Your task to perform on an android device: turn off location Image 0: 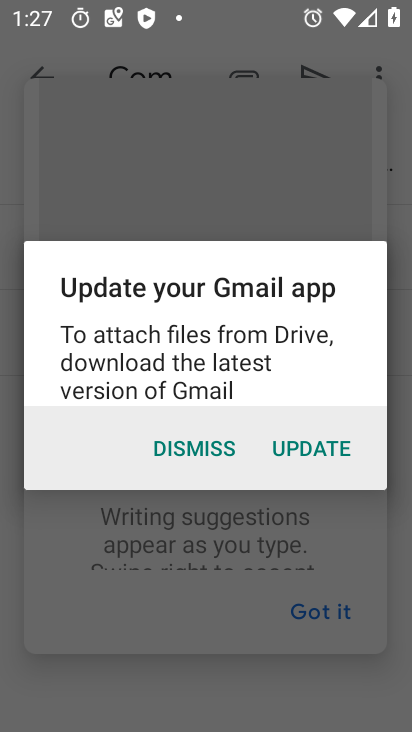
Step 0: press home button
Your task to perform on an android device: turn off location Image 1: 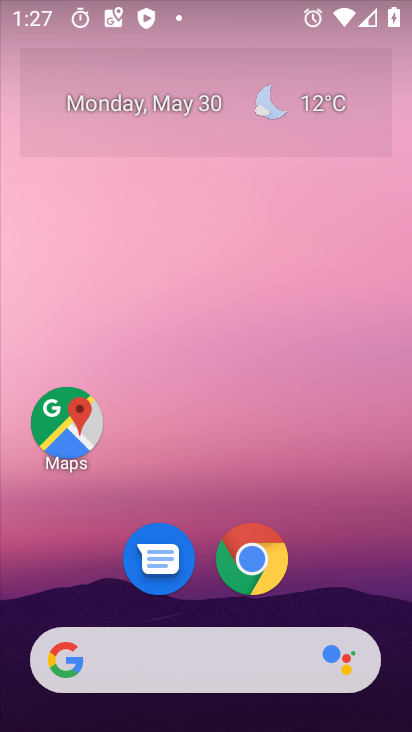
Step 1: drag from (189, 489) to (232, 82)
Your task to perform on an android device: turn off location Image 2: 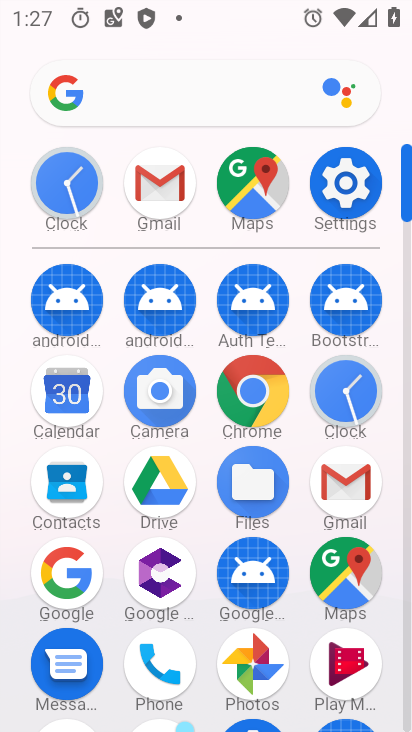
Step 2: click (361, 180)
Your task to perform on an android device: turn off location Image 3: 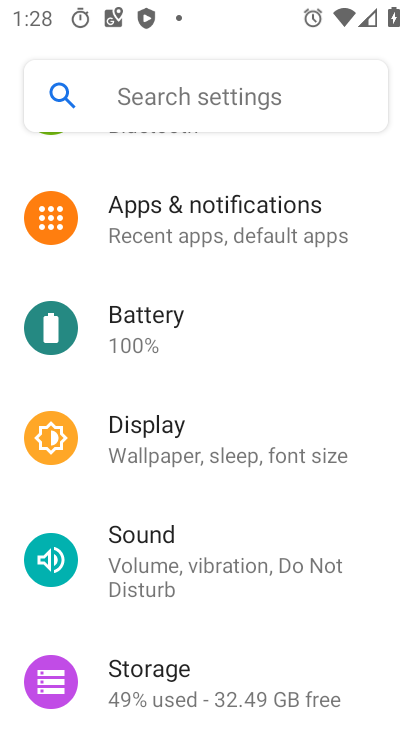
Step 3: drag from (177, 663) to (276, 132)
Your task to perform on an android device: turn off location Image 4: 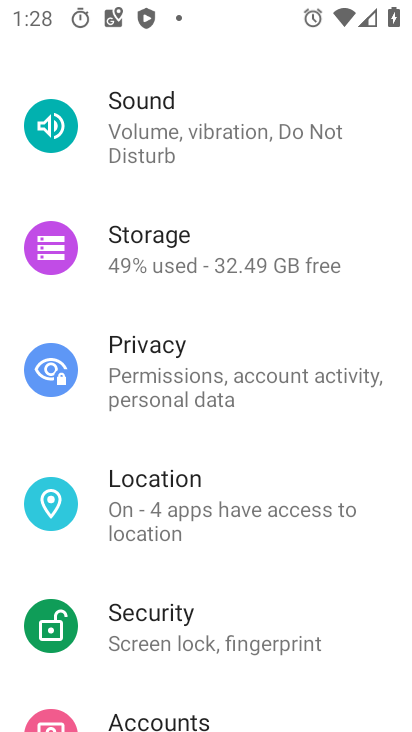
Step 4: click (142, 507)
Your task to perform on an android device: turn off location Image 5: 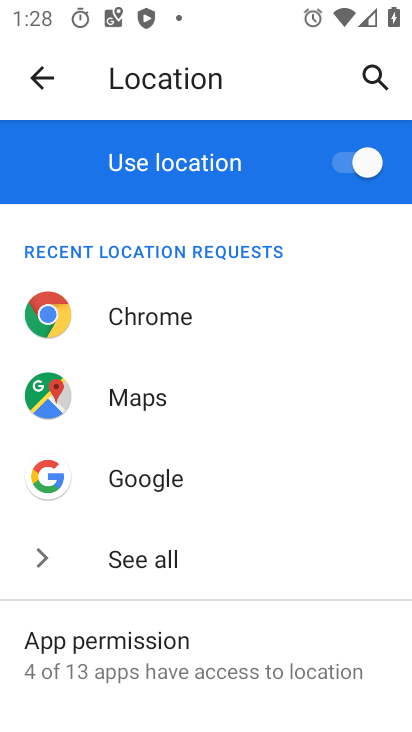
Step 5: click (353, 170)
Your task to perform on an android device: turn off location Image 6: 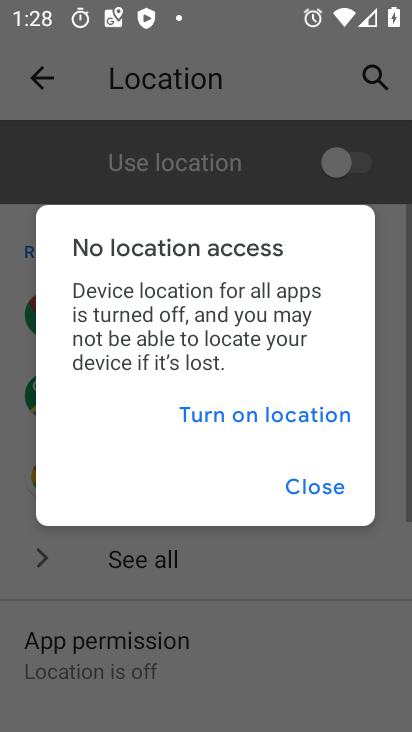
Step 6: task complete